Your task to perform on an android device: move a message to another label in the gmail app Image 0: 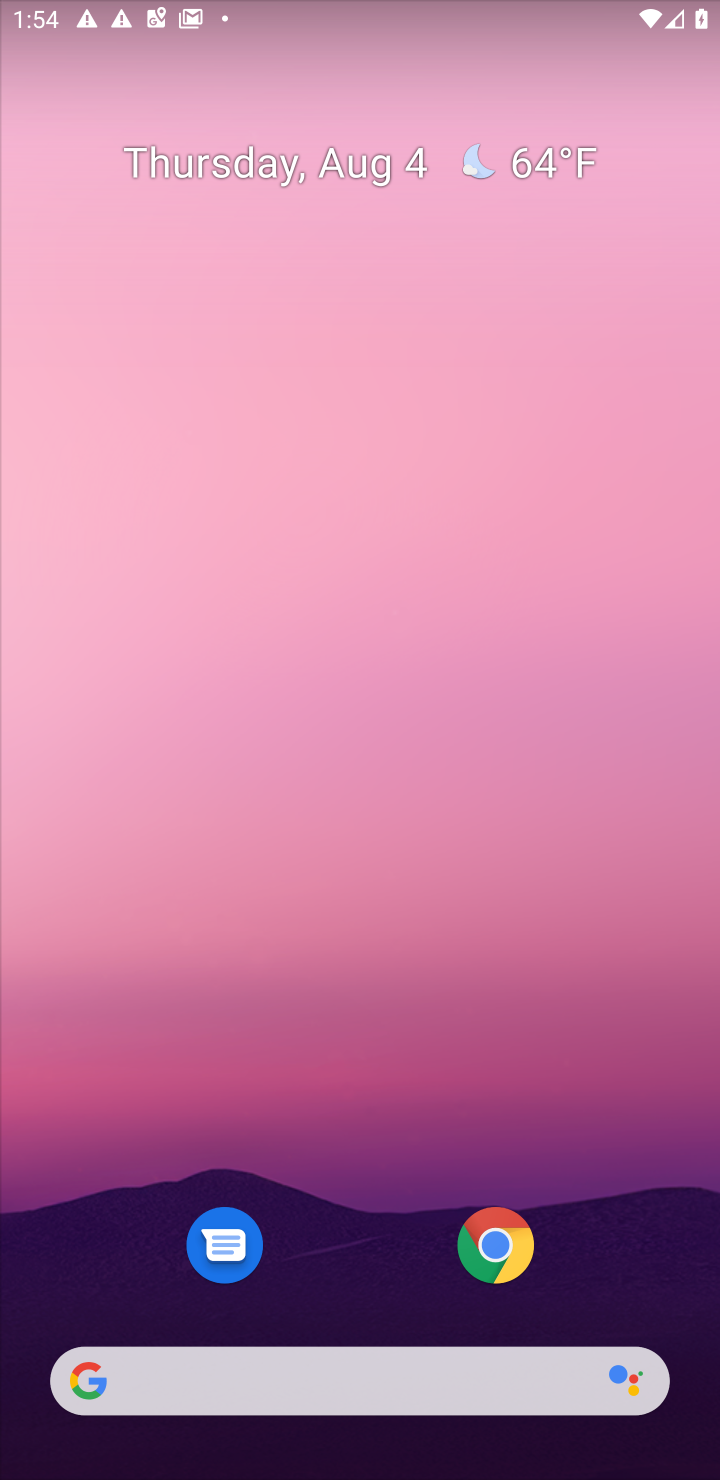
Step 0: drag from (419, 946) to (405, 332)
Your task to perform on an android device: move a message to another label in the gmail app Image 1: 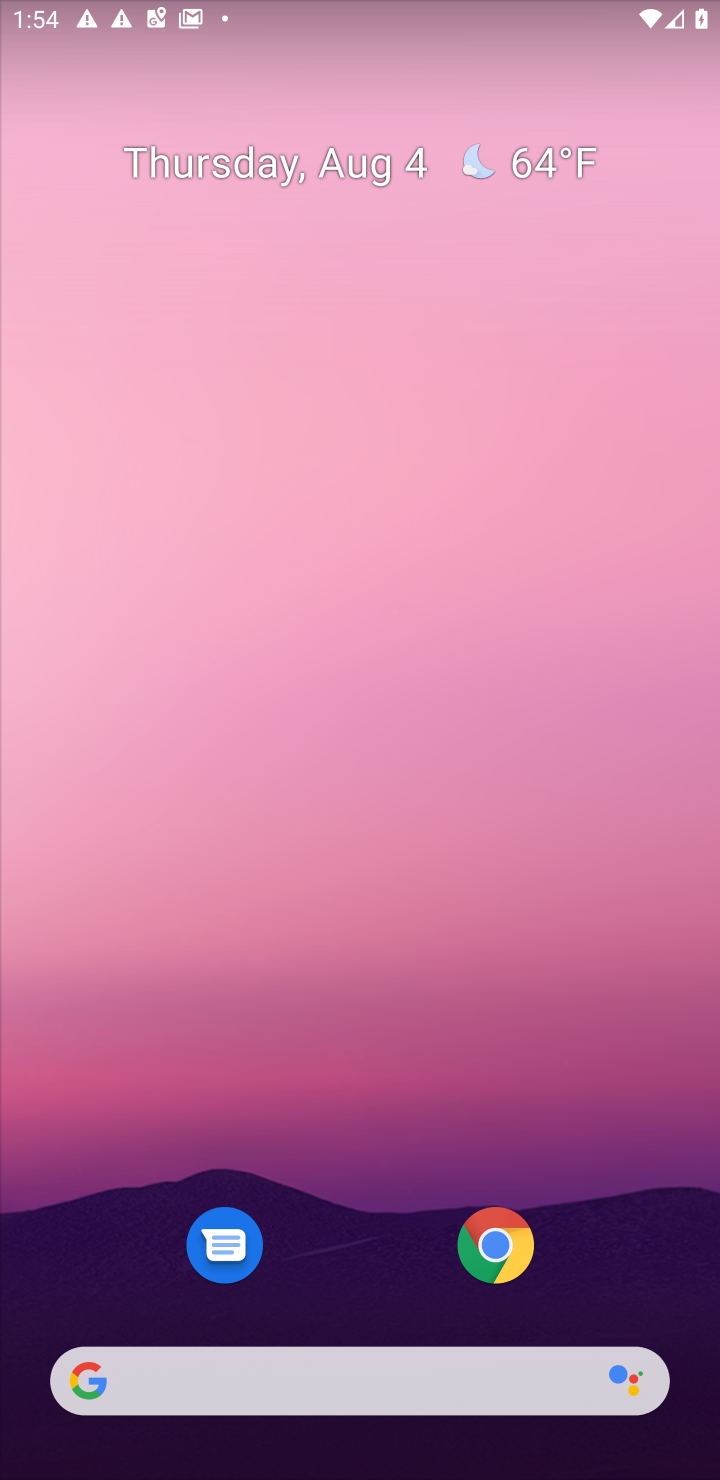
Step 1: drag from (310, 1279) to (382, 119)
Your task to perform on an android device: move a message to another label in the gmail app Image 2: 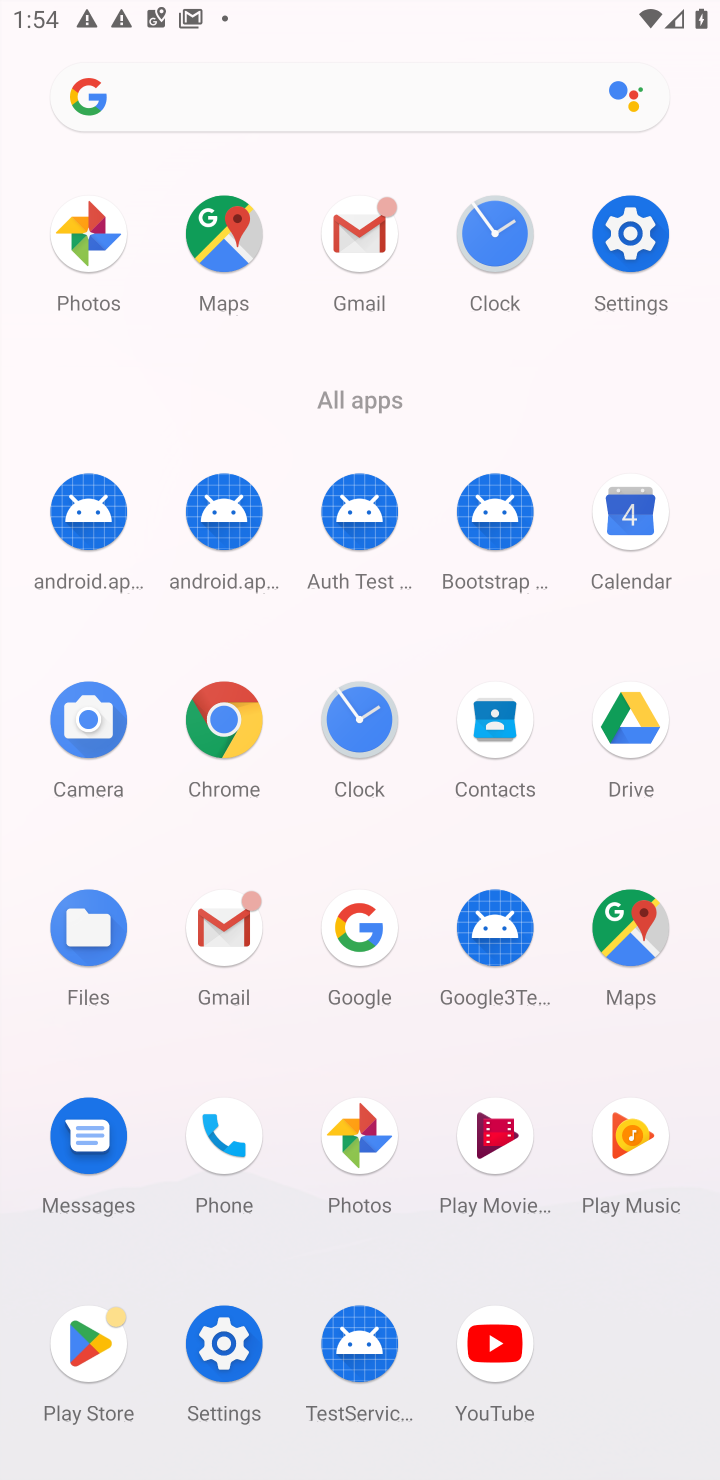
Step 2: click (222, 950)
Your task to perform on an android device: move a message to another label in the gmail app Image 3: 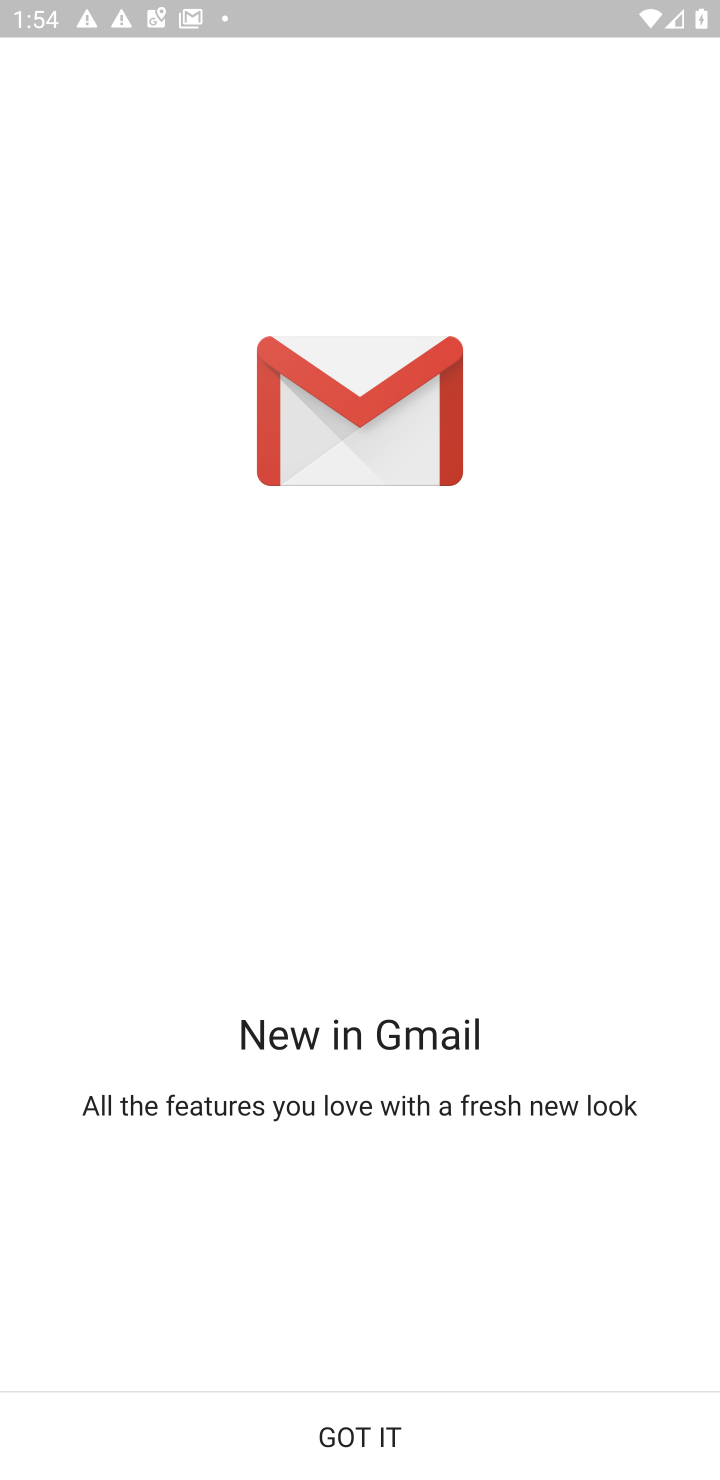
Step 3: click (365, 1439)
Your task to perform on an android device: move a message to another label in the gmail app Image 4: 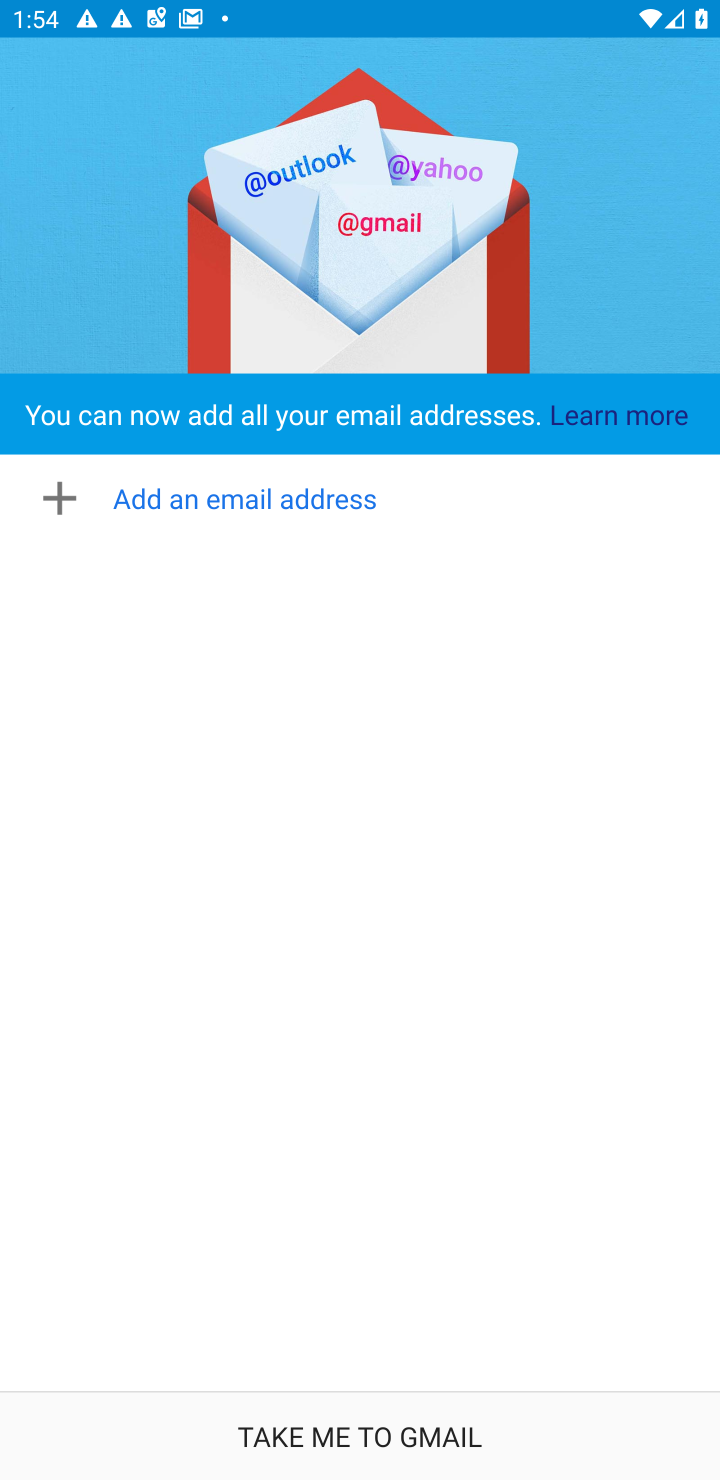
Step 4: click (365, 1439)
Your task to perform on an android device: move a message to another label in the gmail app Image 5: 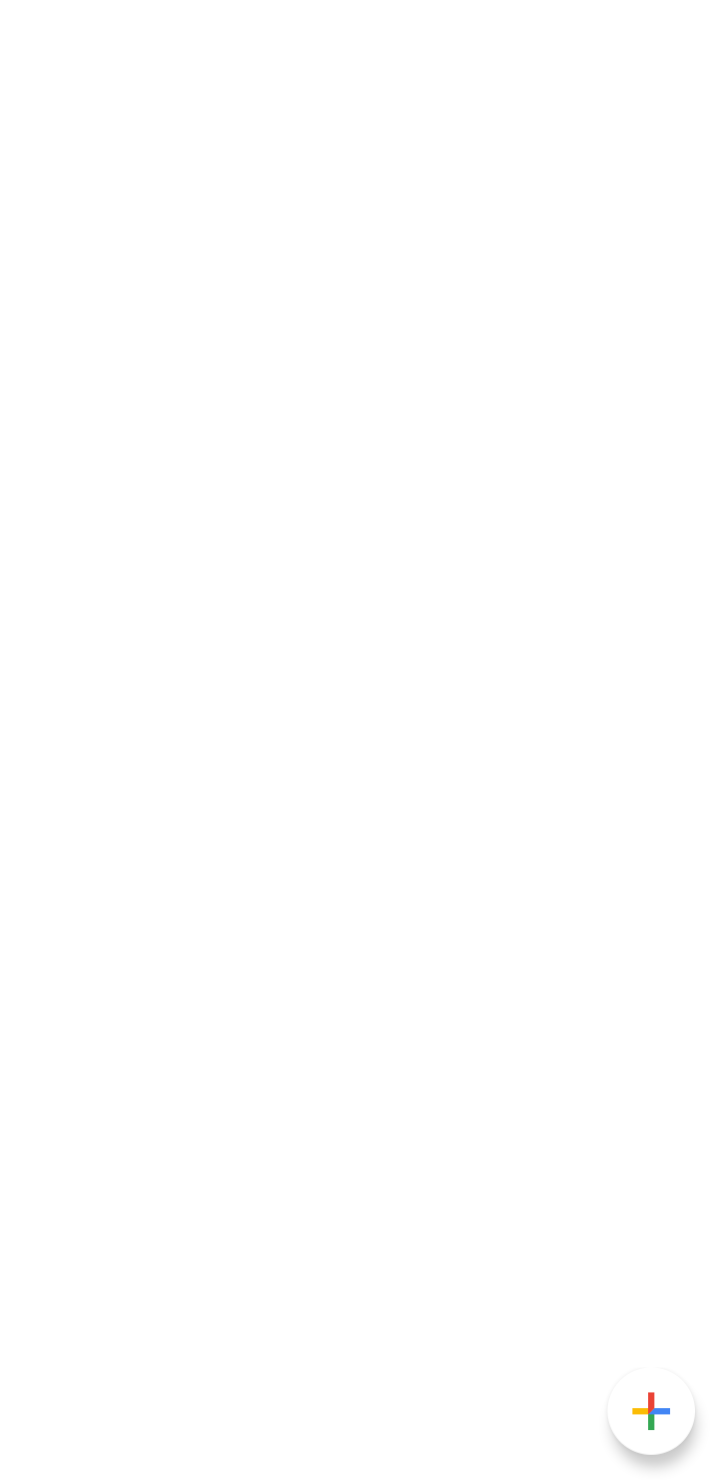
Step 5: click (365, 1439)
Your task to perform on an android device: move a message to another label in the gmail app Image 6: 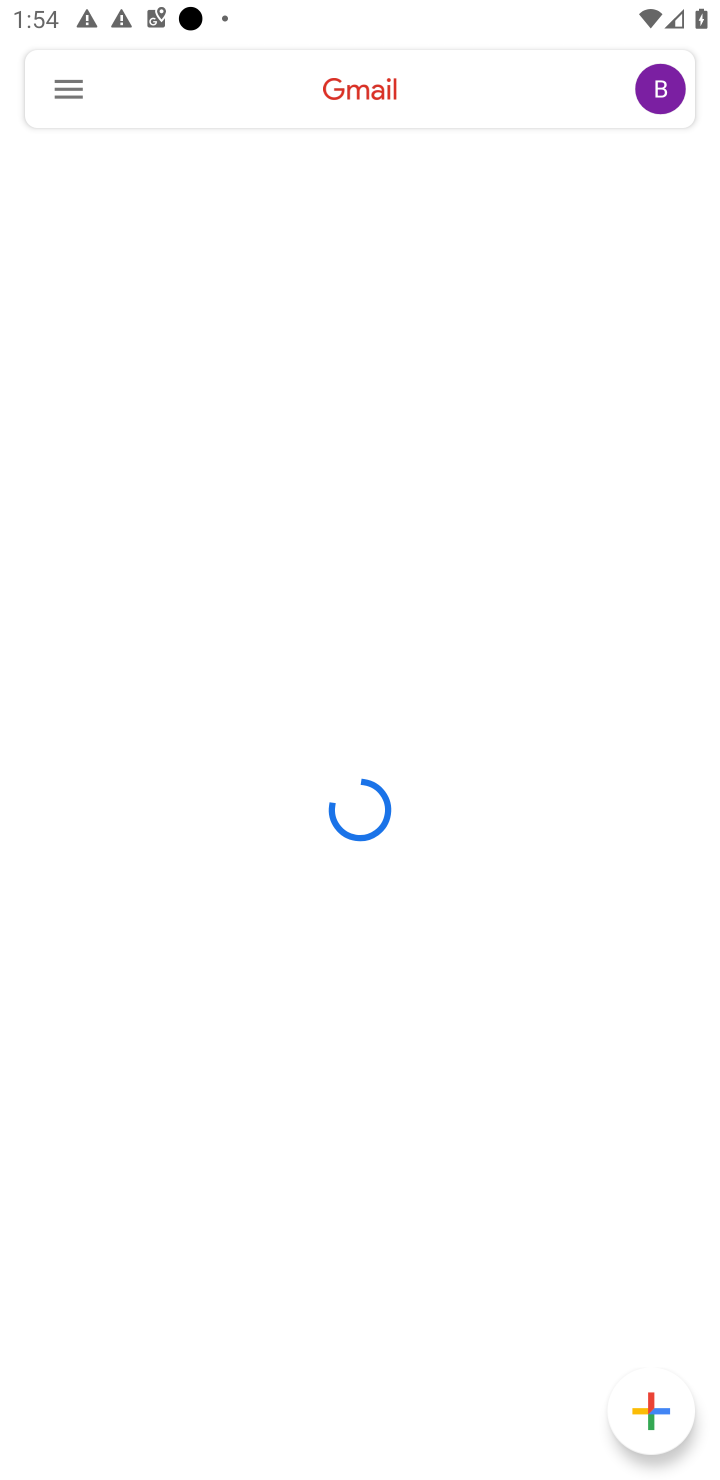
Step 6: click (59, 77)
Your task to perform on an android device: move a message to another label in the gmail app Image 7: 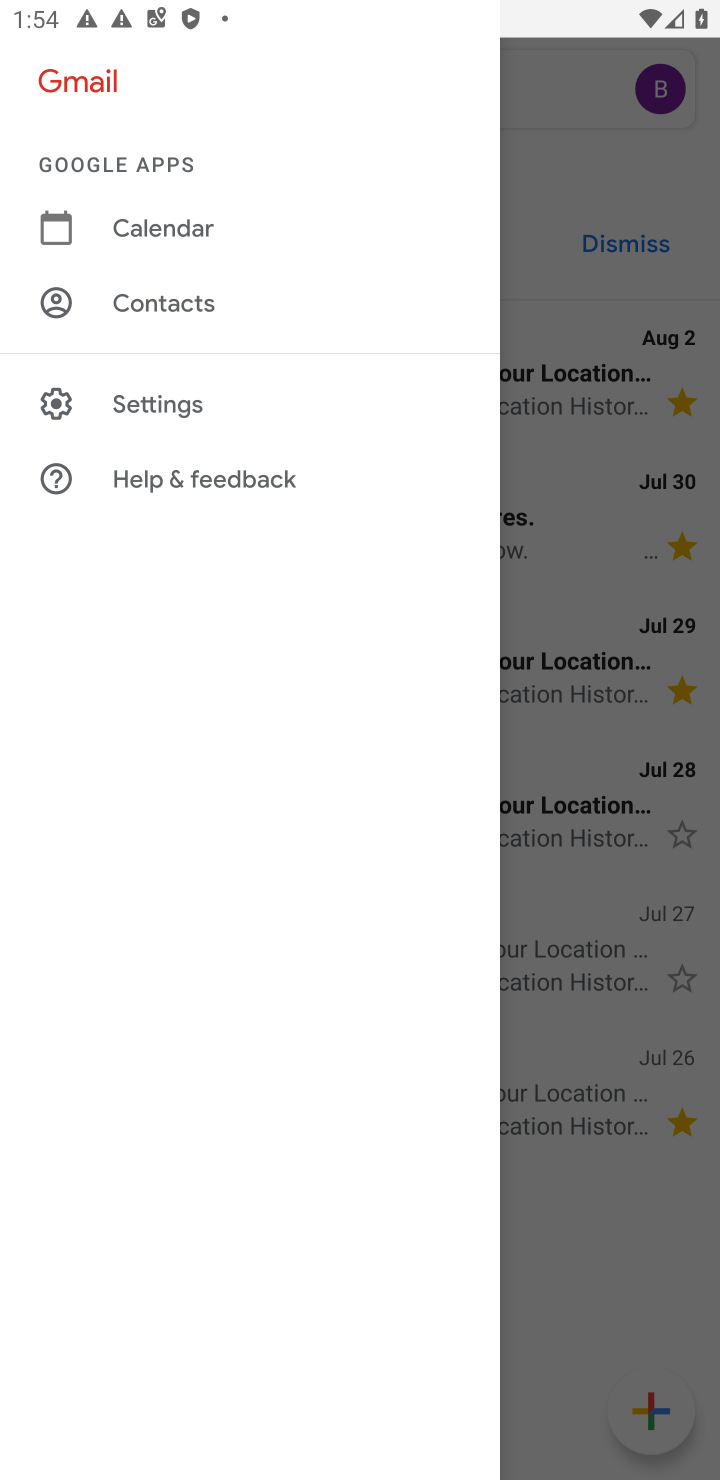
Step 7: click (535, 332)
Your task to perform on an android device: move a message to another label in the gmail app Image 8: 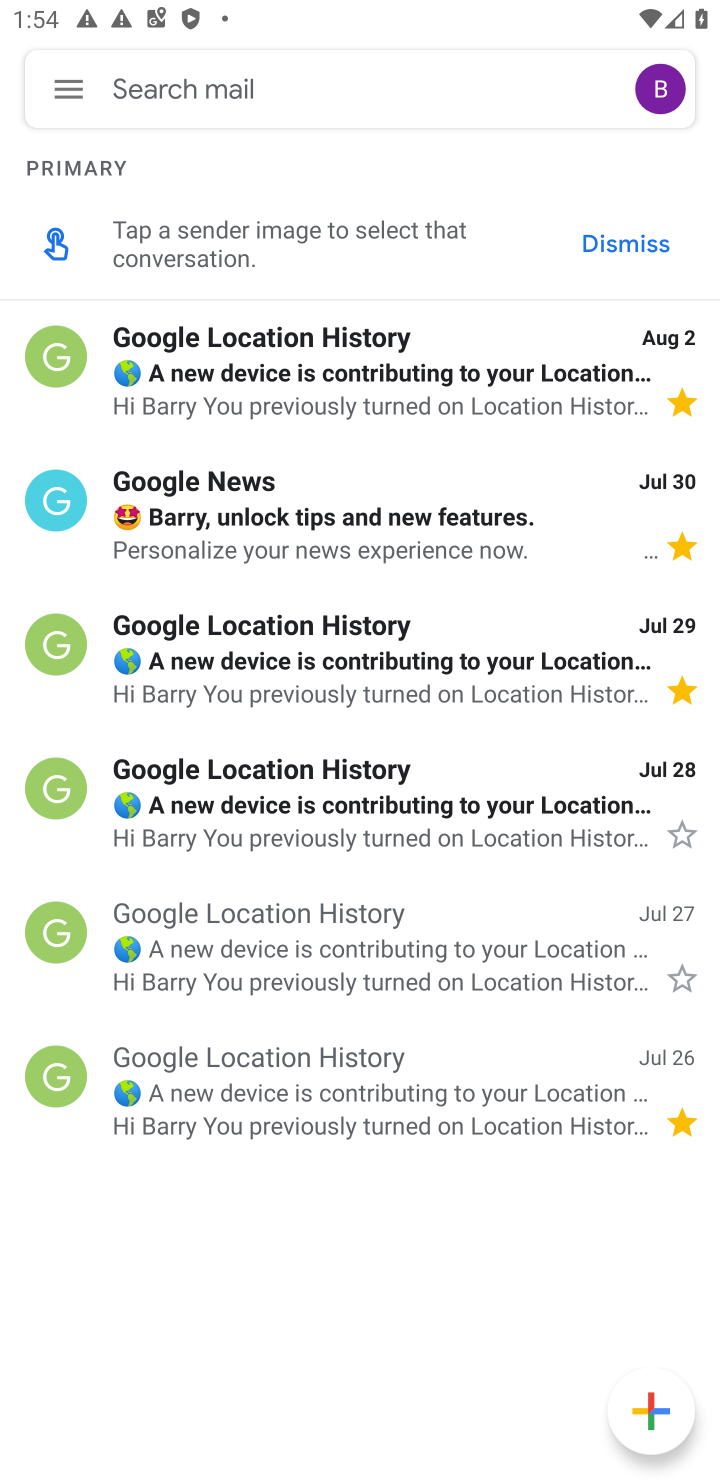
Step 8: click (206, 374)
Your task to perform on an android device: move a message to another label in the gmail app Image 9: 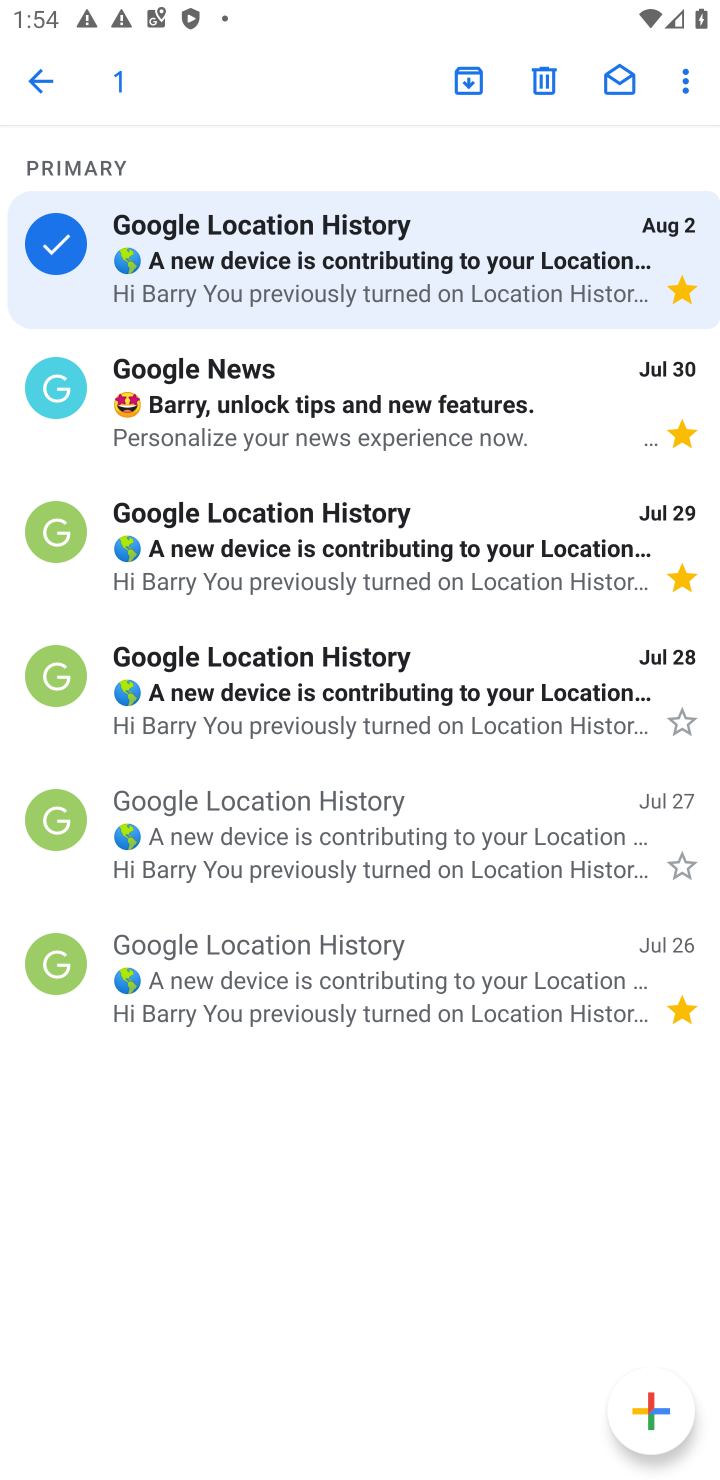
Step 9: click (691, 79)
Your task to perform on an android device: move a message to another label in the gmail app Image 10: 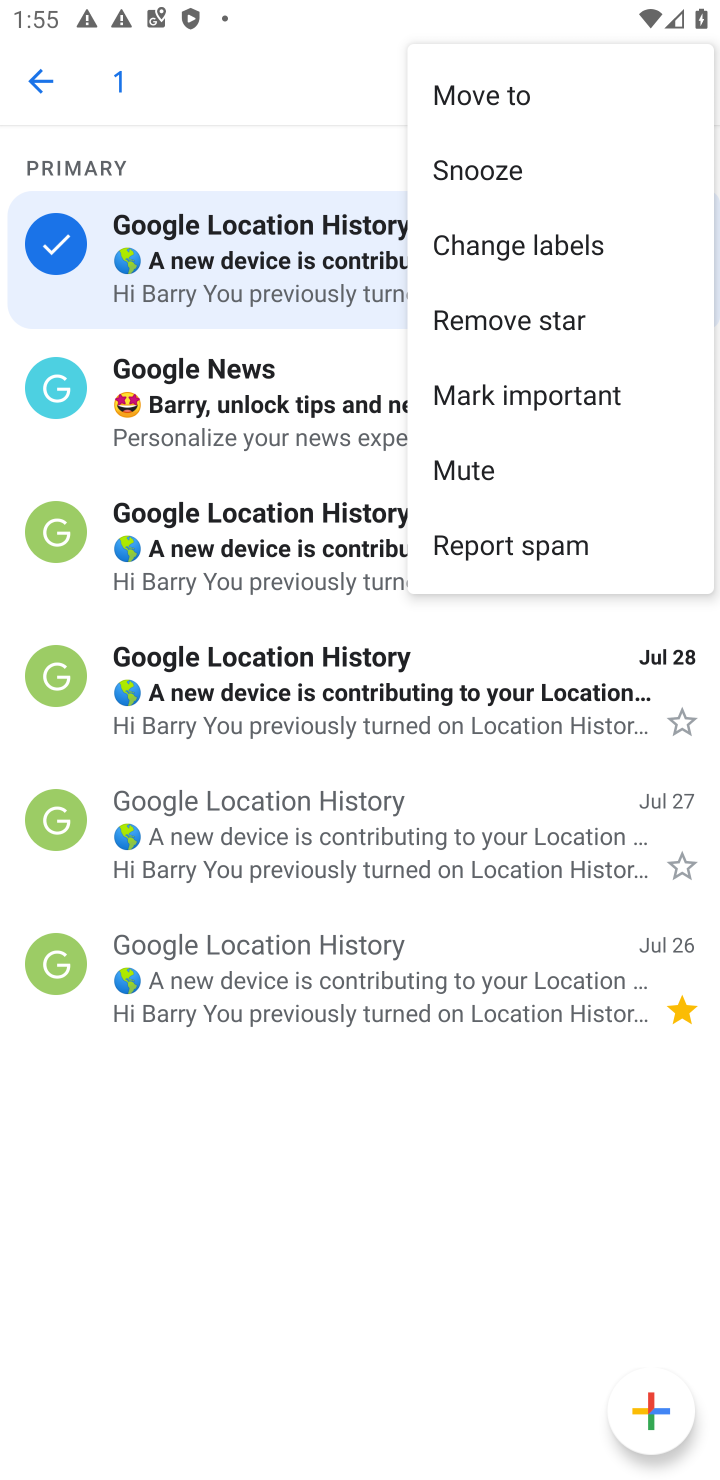
Step 10: click (518, 248)
Your task to perform on an android device: move a message to another label in the gmail app Image 11: 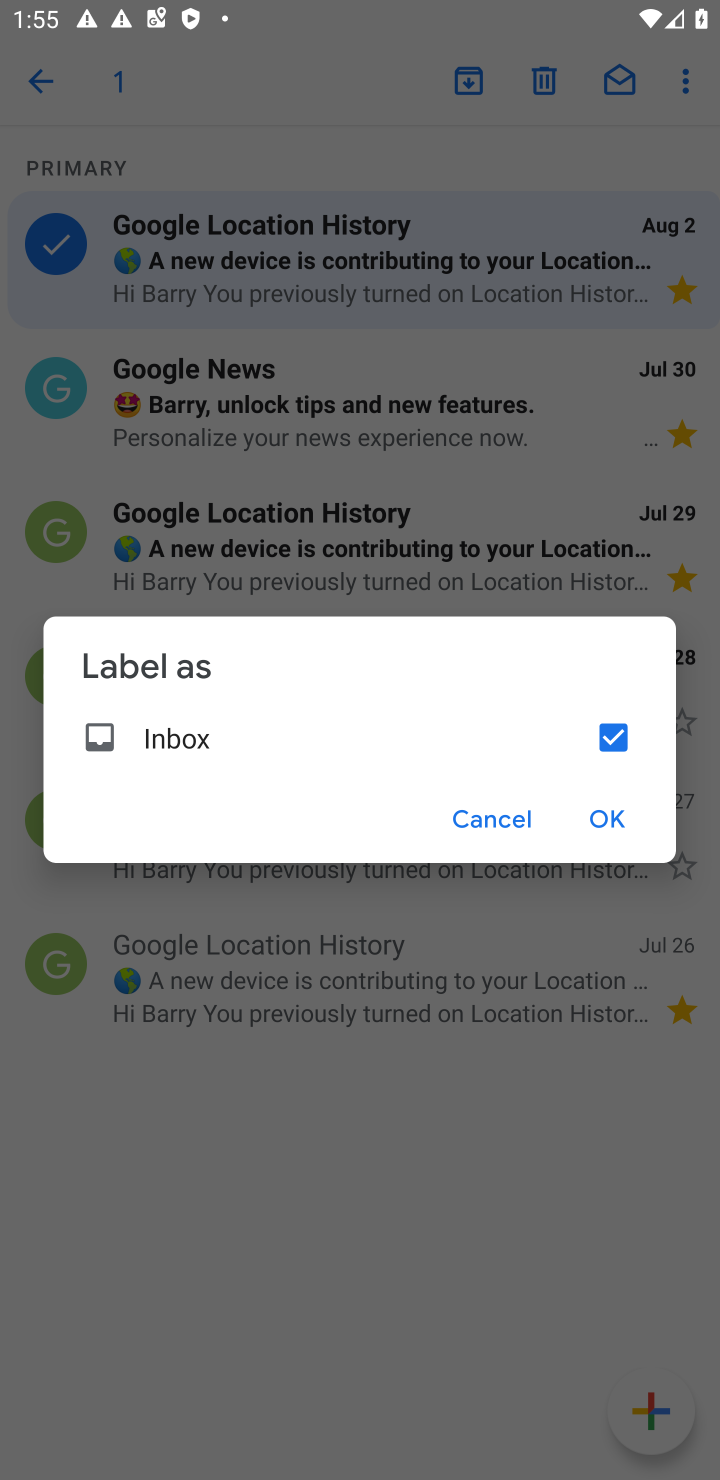
Step 11: click (618, 800)
Your task to perform on an android device: move a message to another label in the gmail app Image 12: 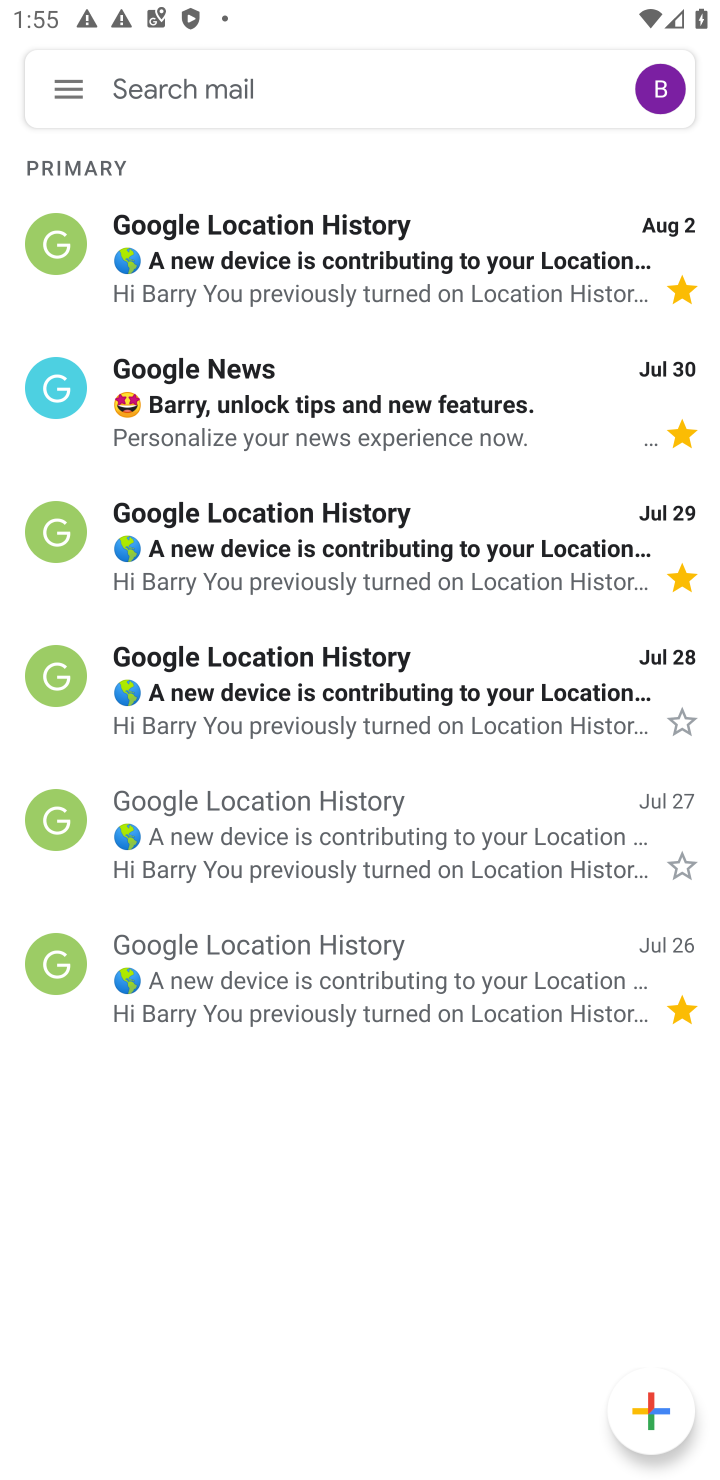
Step 12: task complete